Your task to perform on an android device: Play the last video I watched on Youtube Image 0: 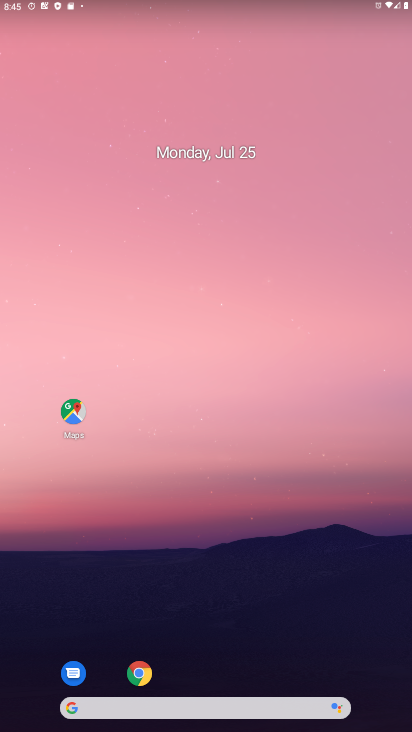
Step 0: drag from (355, 640) to (173, 48)
Your task to perform on an android device: Play the last video I watched on Youtube Image 1: 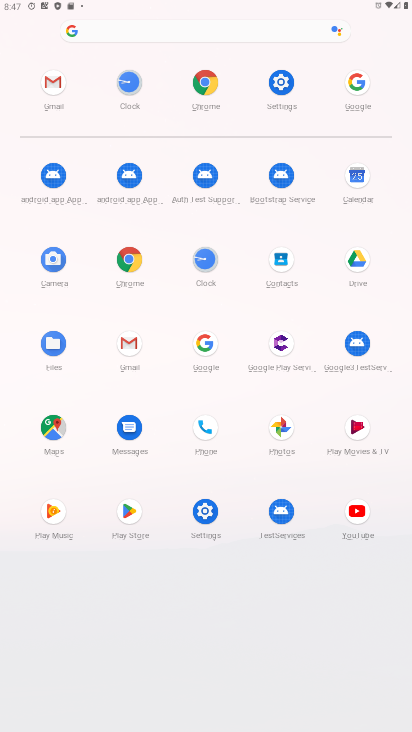
Step 1: click (357, 510)
Your task to perform on an android device: Play the last video I watched on Youtube Image 2: 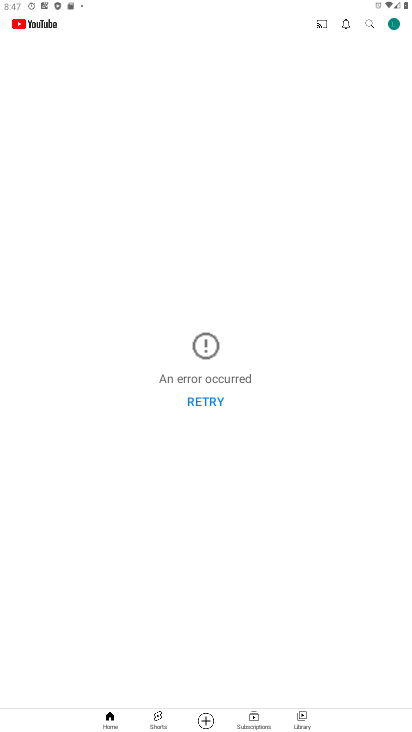
Step 2: task complete